Your task to perform on an android device: Go to Wikipedia Image 0: 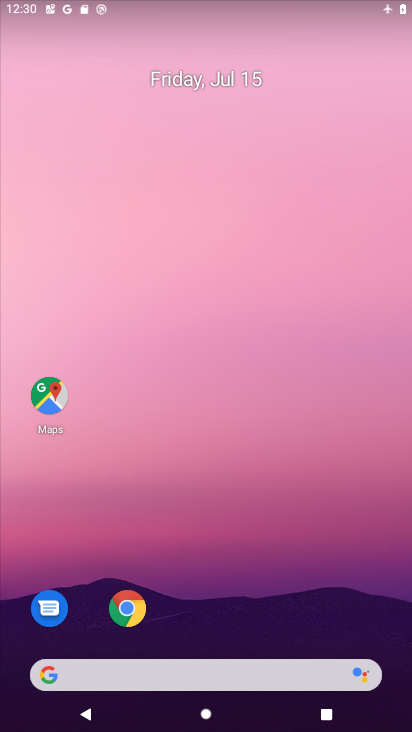
Step 0: click (128, 610)
Your task to perform on an android device: Go to Wikipedia Image 1: 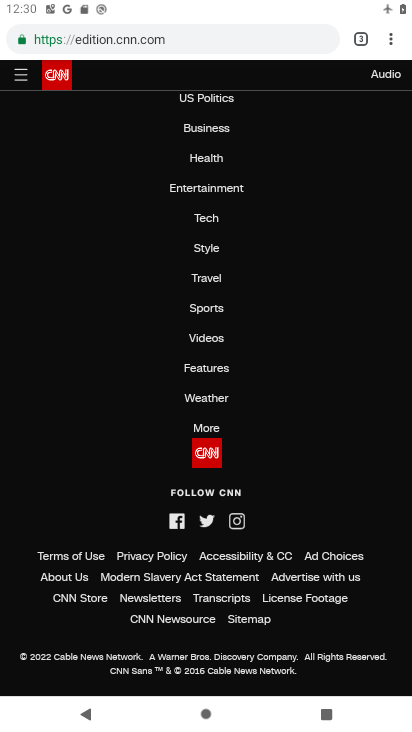
Step 1: click (390, 36)
Your task to perform on an android device: Go to Wikipedia Image 2: 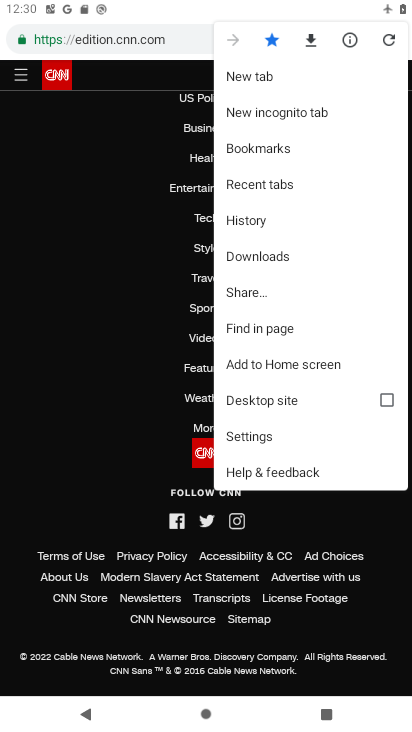
Step 2: click (261, 76)
Your task to perform on an android device: Go to Wikipedia Image 3: 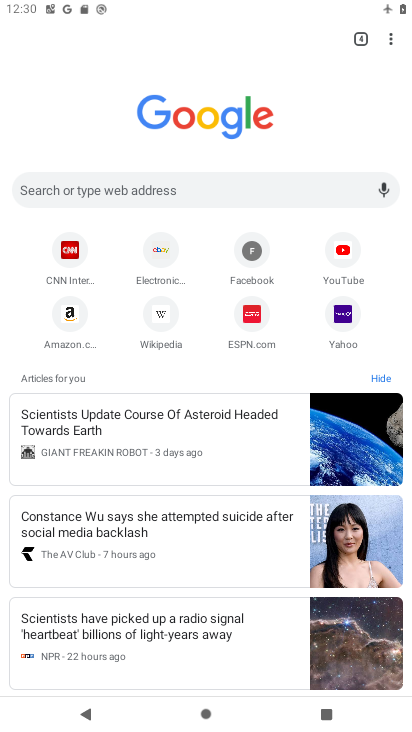
Step 3: click (156, 313)
Your task to perform on an android device: Go to Wikipedia Image 4: 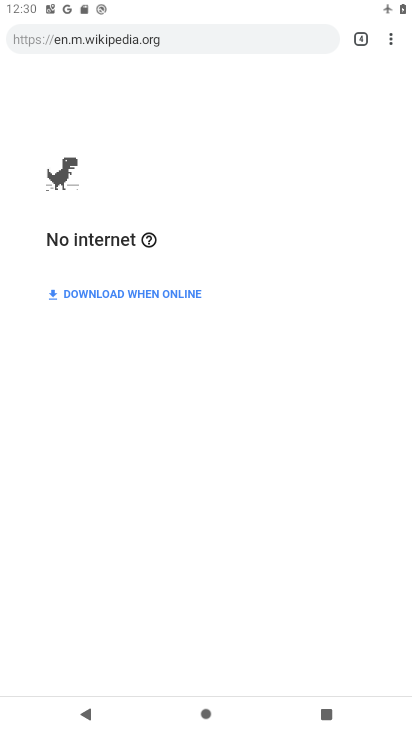
Step 4: task complete